Your task to perform on an android device: turn on translation in the chrome app Image 0: 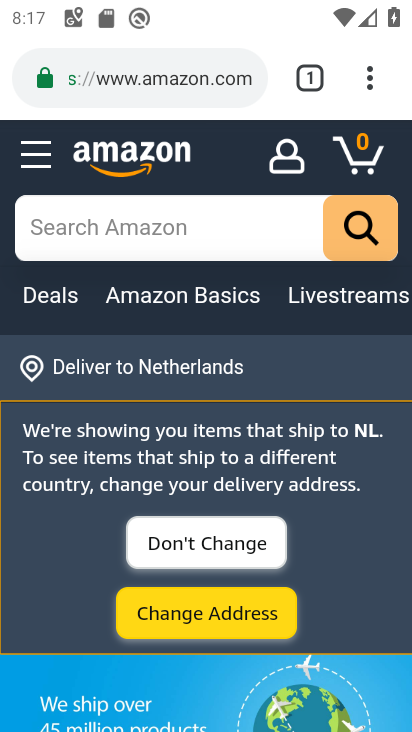
Step 0: click (370, 88)
Your task to perform on an android device: turn on translation in the chrome app Image 1: 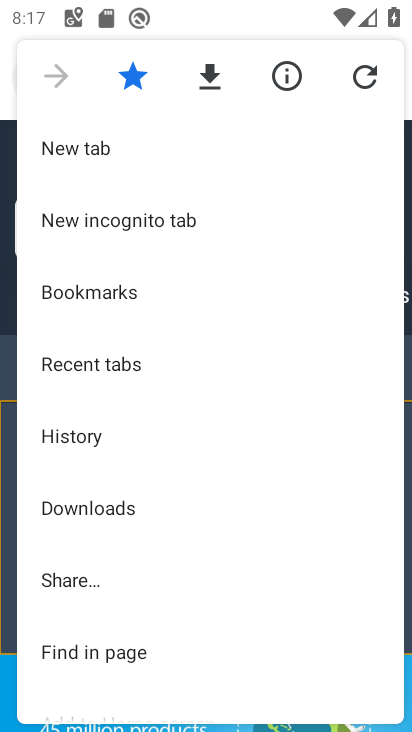
Step 1: drag from (188, 571) to (276, 244)
Your task to perform on an android device: turn on translation in the chrome app Image 2: 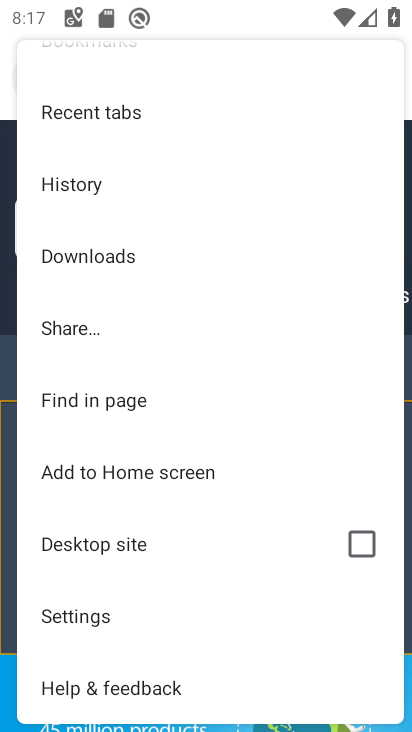
Step 2: click (121, 632)
Your task to perform on an android device: turn on translation in the chrome app Image 3: 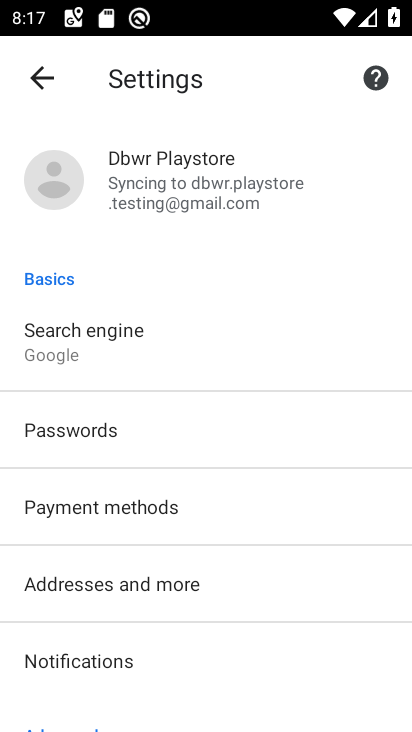
Step 3: drag from (180, 573) to (246, 248)
Your task to perform on an android device: turn on translation in the chrome app Image 4: 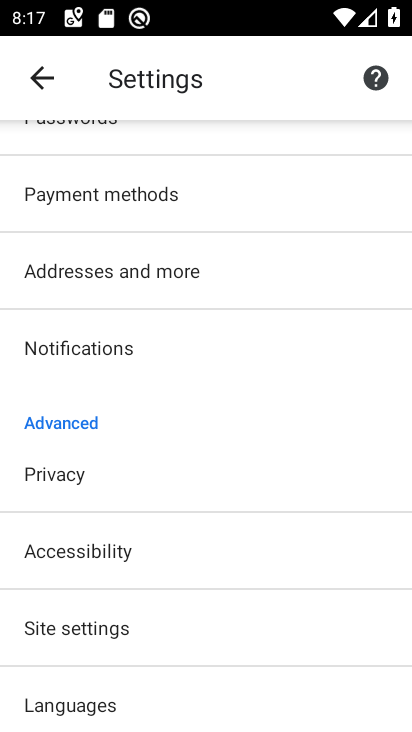
Step 4: click (31, 71)
Your task to perform on an android device: turn on translation in the chrome app Image 5: 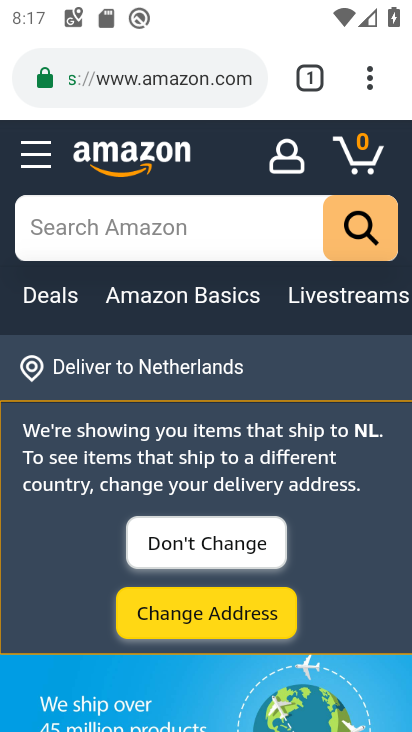
Step 5: click (367, 78)
Your task to perform on an android device: turn on translation in the chrome app Image 6: 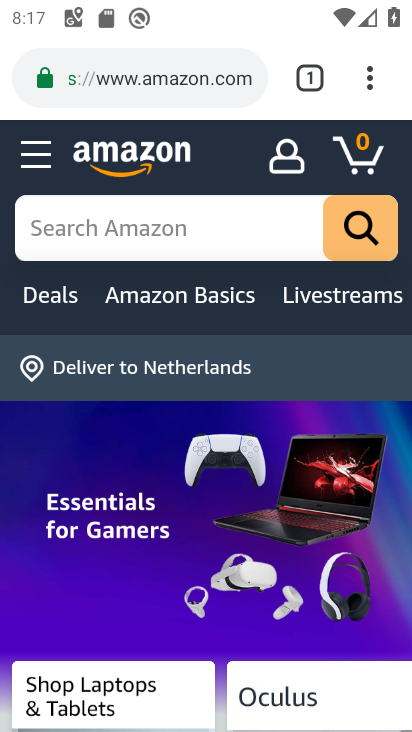
Step 6: click (381, 84)
Your task to perform on an android device: turn on translation in the chrome app Image 7: 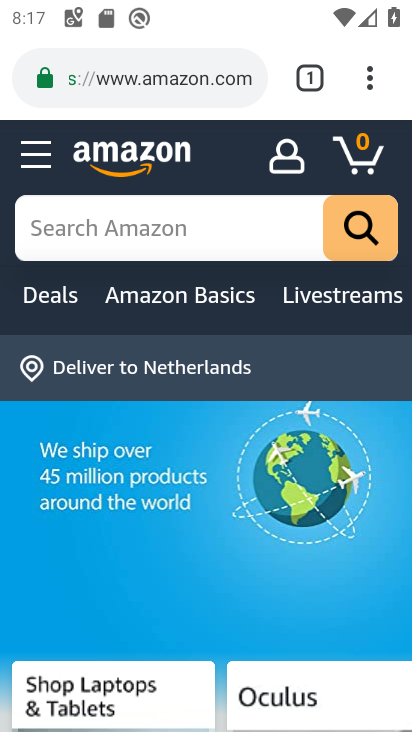
Step 7: click (372, 98)
Your task to perform on an android device: turn on translation in the chrome app Image 8: 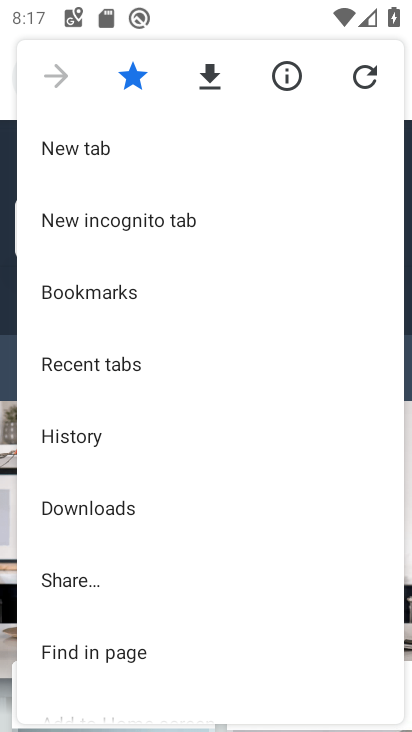
Step 8: task complete